Your task to perform on an android device: turn on javascript in the chrome app Image 0: 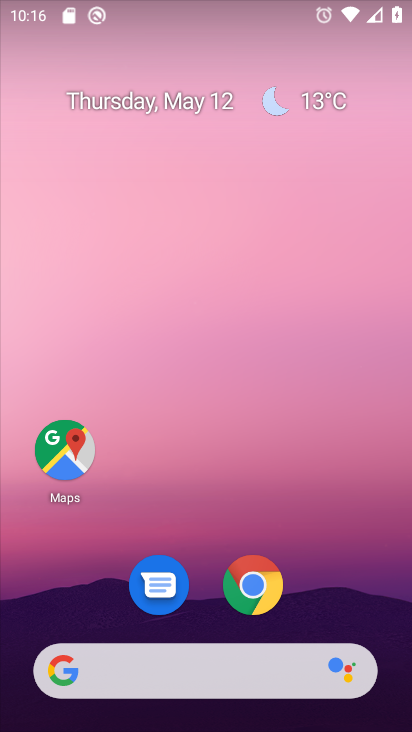
Step 0: click (259, 576)
Your task to perform on an android device: turn on javascript in the chrome app Image 1: 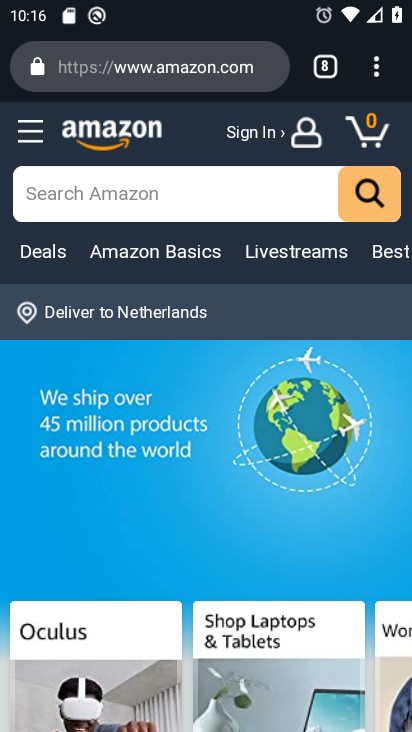
Step 1: click (379, 76)
Your task to perform on an android device: turn on javascript in the chrome app Image 2: 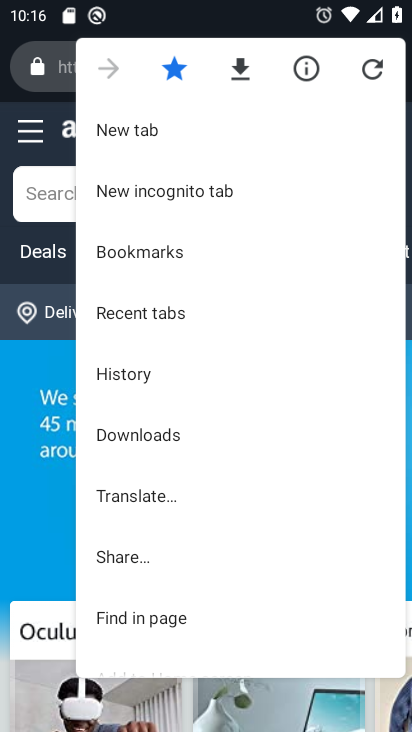
Step 2: drag from (212, 517) to (307, 236)
Your task to perform on an android device: turn on javascript in the chrome app Image 3: 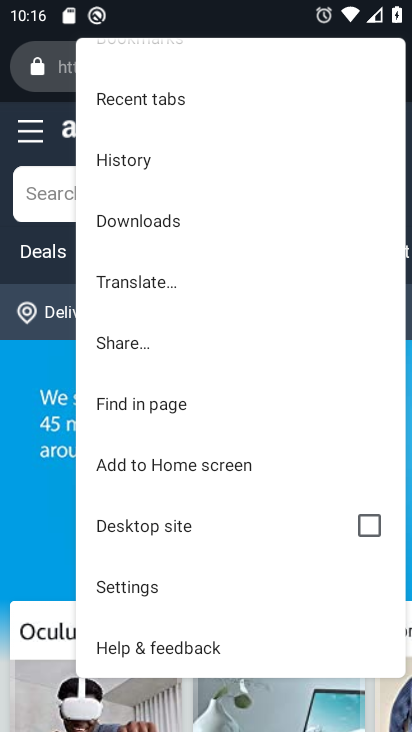
Step 3: click (159, 587)
Your task to perform on an android device: turn on javascript in the chrome app Image 4: 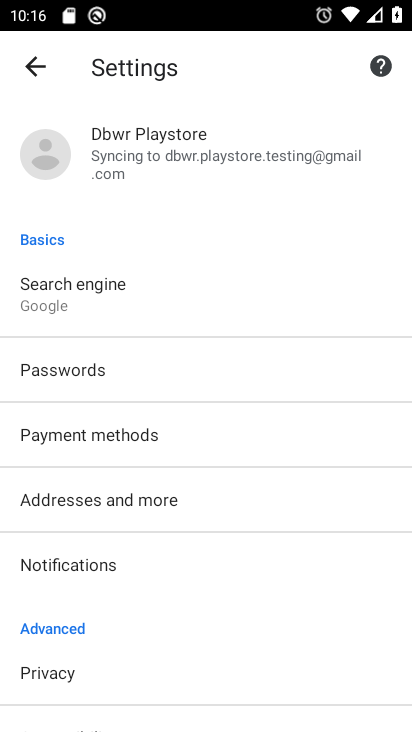
Step 4: drag from (205, 613) to (280, 281)
Your task to perform on an android device: turn on javascript in the chrome app Image 5: 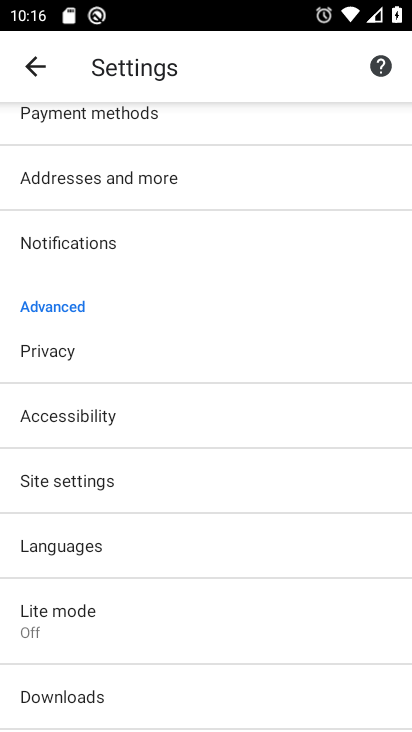
Step 5: click (152, 485)
Your task to perform on an android device: turn on javascript in the chrome app Image 6: 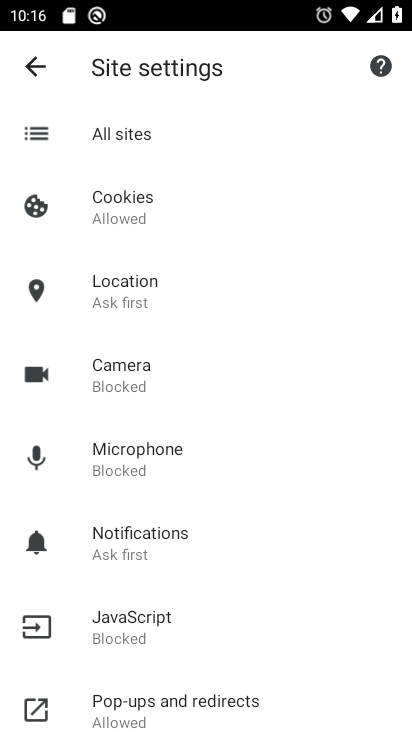
Step 6: click (141, 625)
Your task to perform on an android device: turn on javascript in the chrome app Image 7: 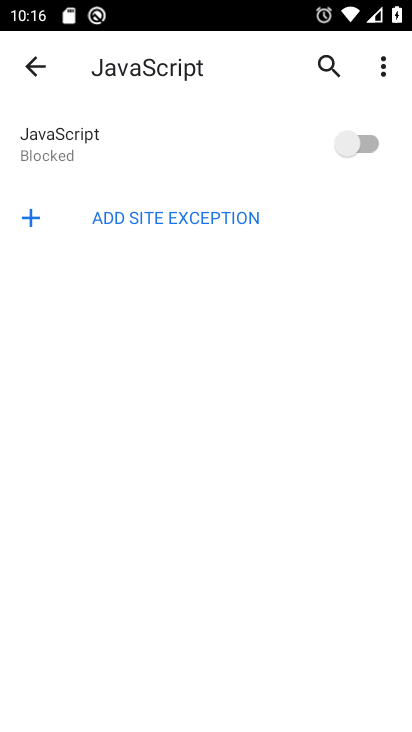
Step 7: click (375, 139)
Your task to perform on an android device: turn on javascript in the chrome app Image 8: 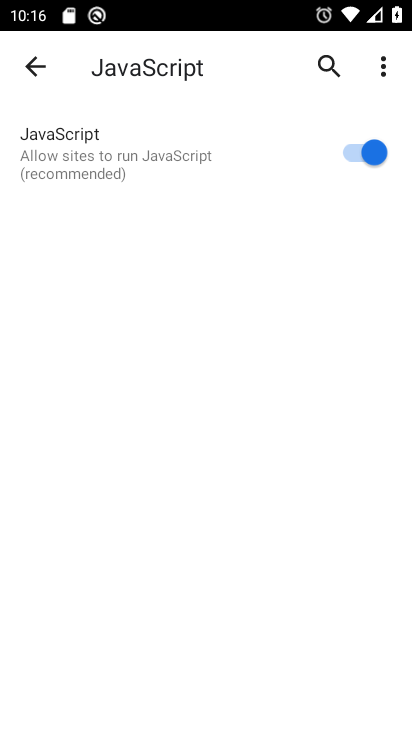
Step 8: task complete